Your task to perform on an android device: turn on the 24-hour format for clock Image 0: 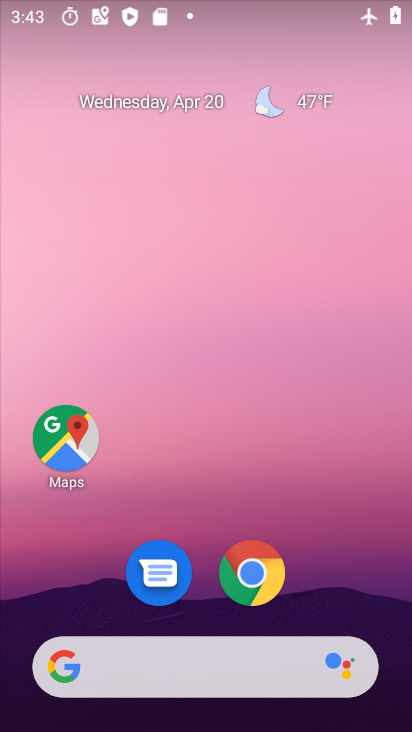
Step 0: drag from (205, 714) to (195, 102)
Your task to perform on an android device: turn on the 24-hour format for clock Image 1: 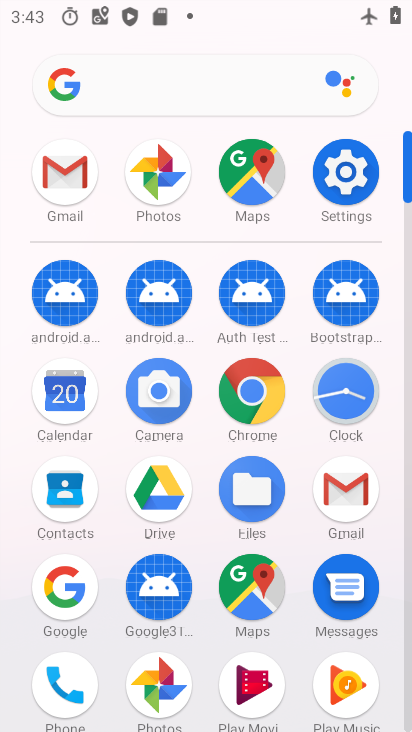
Step 1: click (349, 403)
Your task to perform on an android device: turn on the 24-hour format for clock Image 2: 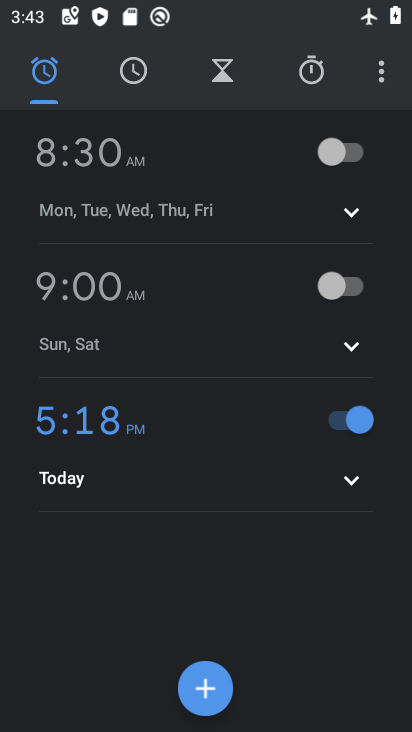
Step 2: click (379, 78)
Your task to perform on an android device: turn on the 24-hour format for clock Image 3: 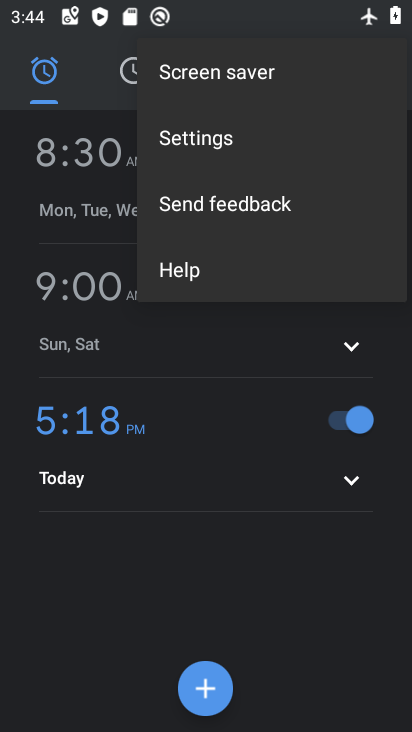
Step 3: click (200, 137)
Your task to perform on an android device: turn on the 24-hour format for clock Image 4: 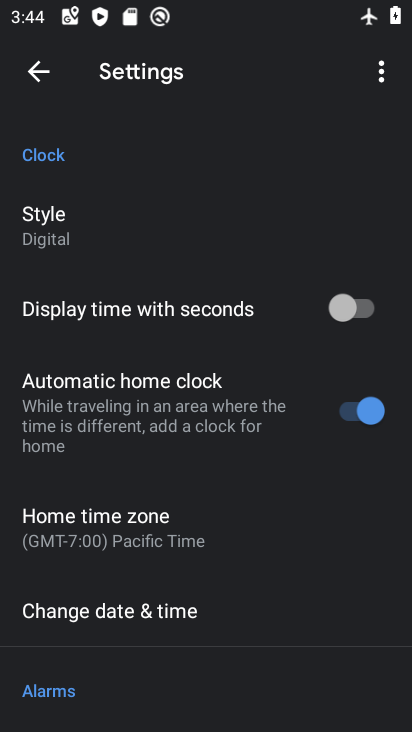
Step 4: click (130, 610)
Your task to perform on an android device: turn on the 24-hour format for clock Image 5: 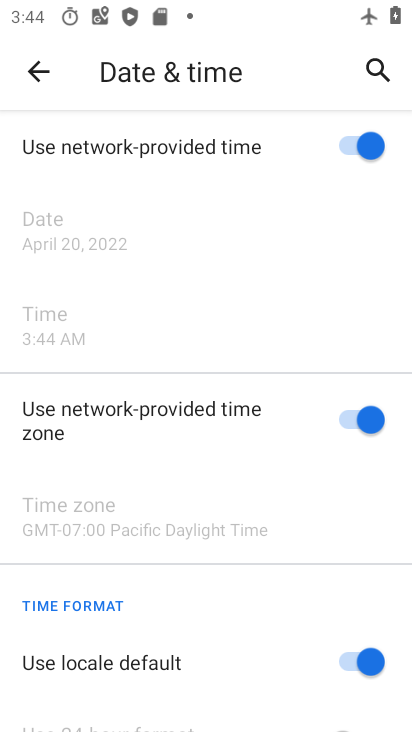
Step 5: drag from (209, 652) to (208, 238)
Your task to perform on an android device: turn on the 24-hour format for clock Image 6: 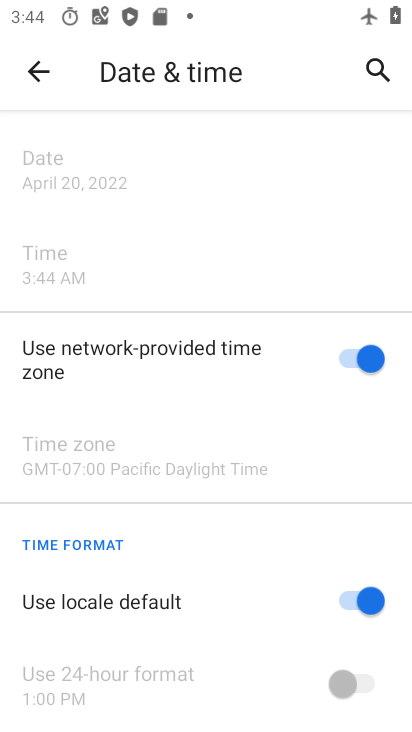
Step 6: click (358, 606)
Your task to perform on an android device: turn on the 24-hour format for clock Image 7: 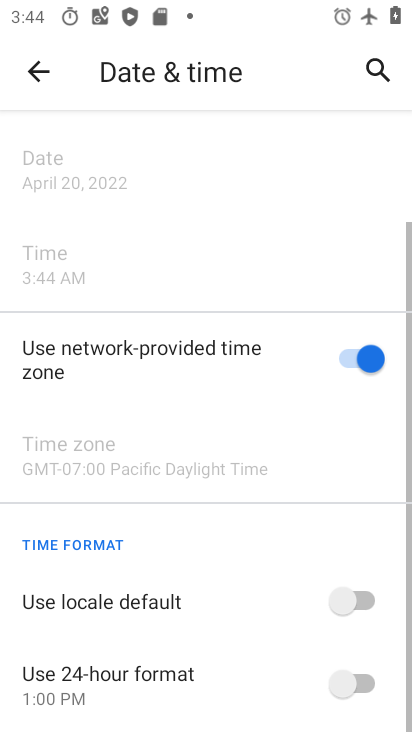
Step 7: click (363, 678)
Your task to perform on an android device: turn on the 24-hour format for clock Image 8: 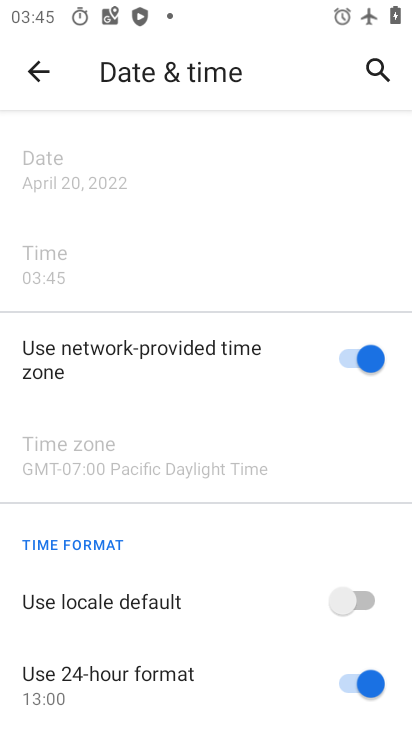
Step 8: task complete